Your task to perform on an android device: change text size in settings app Image 0: 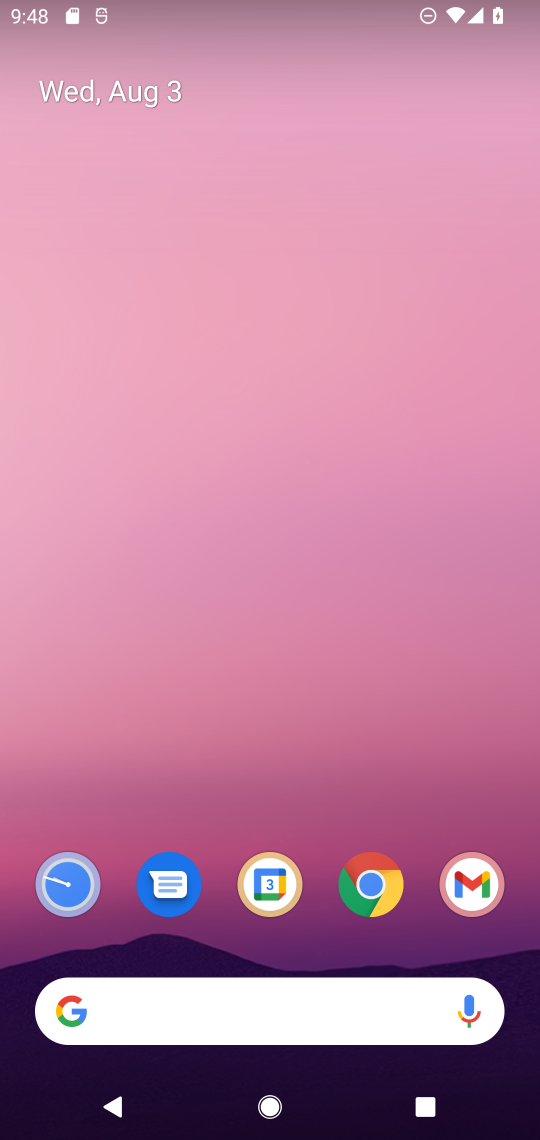
Step 0: drag from (38, 1035) to (444, 68)
Your task to perform on an android device: change text size in settings app Image 1: 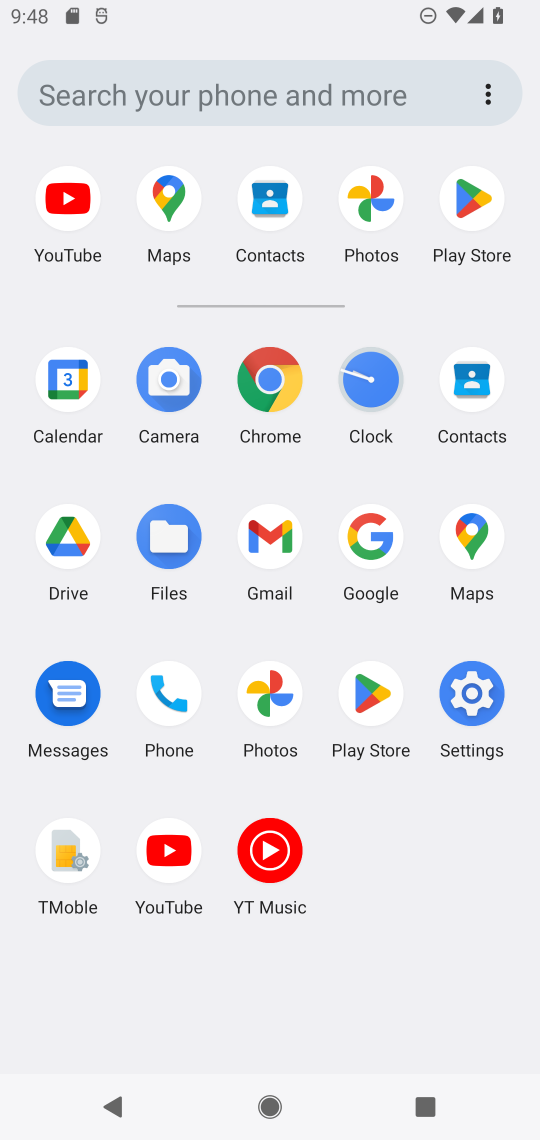
Step 1: click (459, 661)
Your task to perform on an android device: change text size in settings app Image 2: 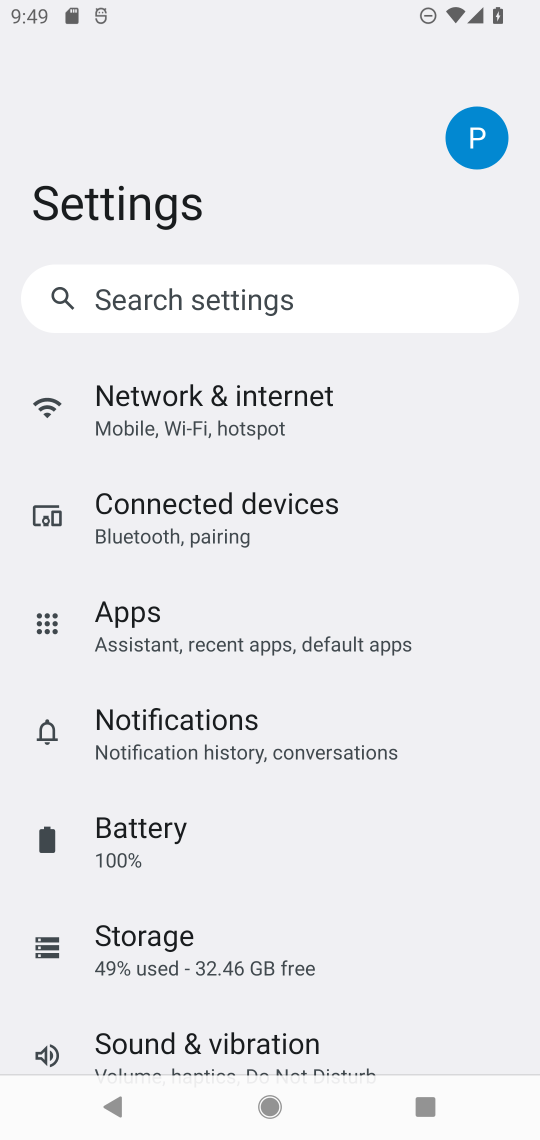
Step 2: drag from (249, 892) to (271, 588)
Your task to perform on an android device: change text size in settings app Image 3: 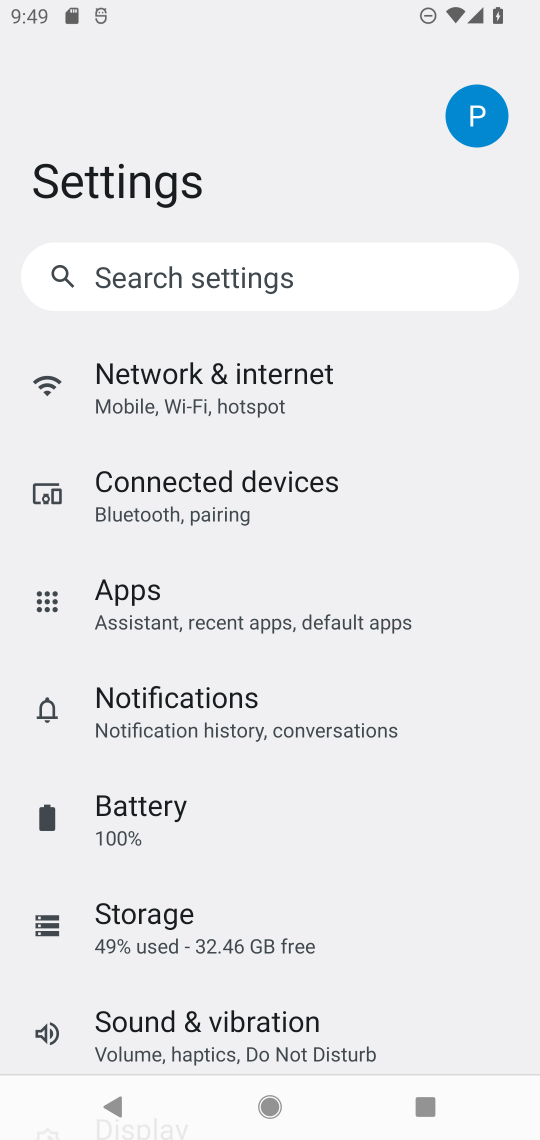
Step 3: drag from (213, 963) to (287, 635)
Your task to perform on an android device: change text size in settings app Image 4: 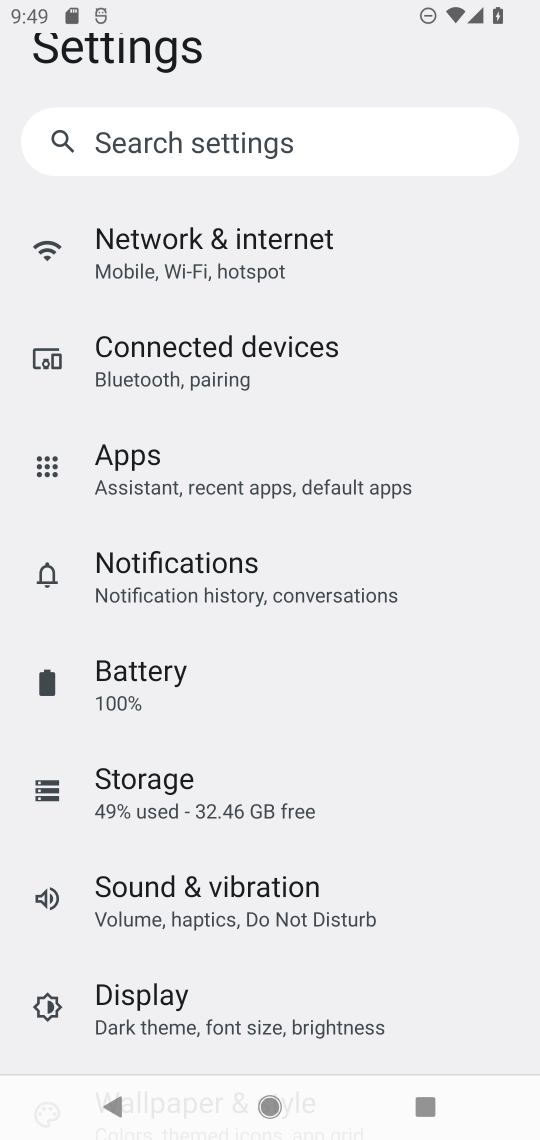
Step 4: drag from (258, 954) to (307, 538)
Your task to perform on an android device: change text size in settings app Image 5: 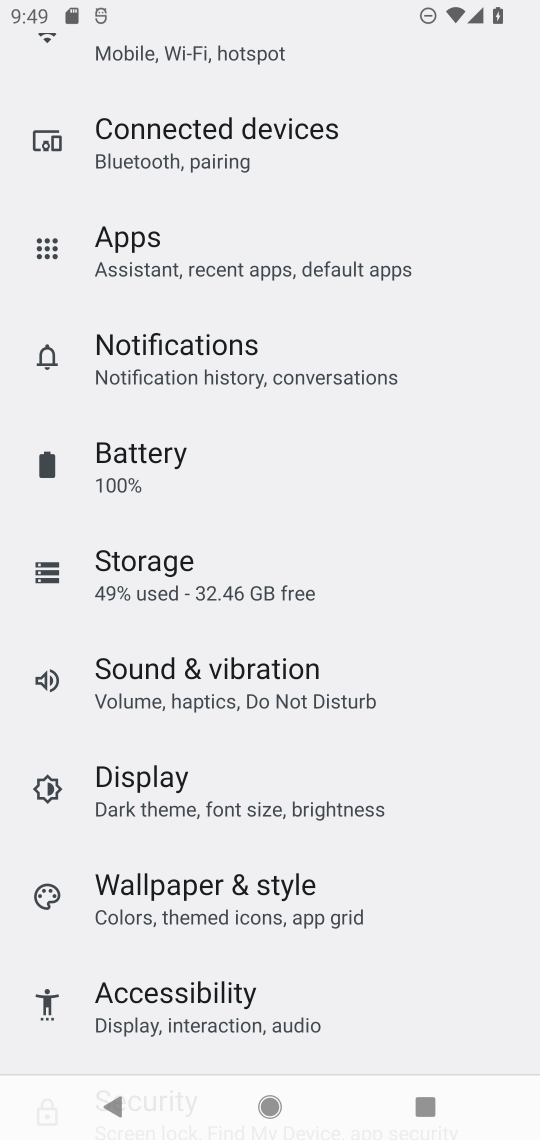
Step 5: click (236, 797)
Your task to perform on an android device: change text size in settings app Image 6: 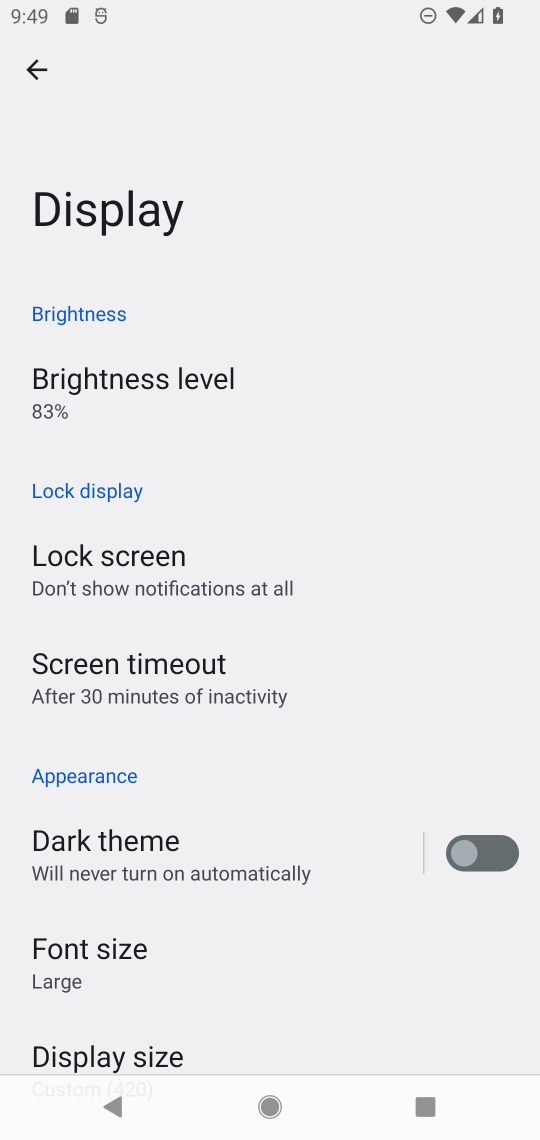
Step 6: click (120, 955)
Your task to perform on an android device: change text size in settings app Image 7: 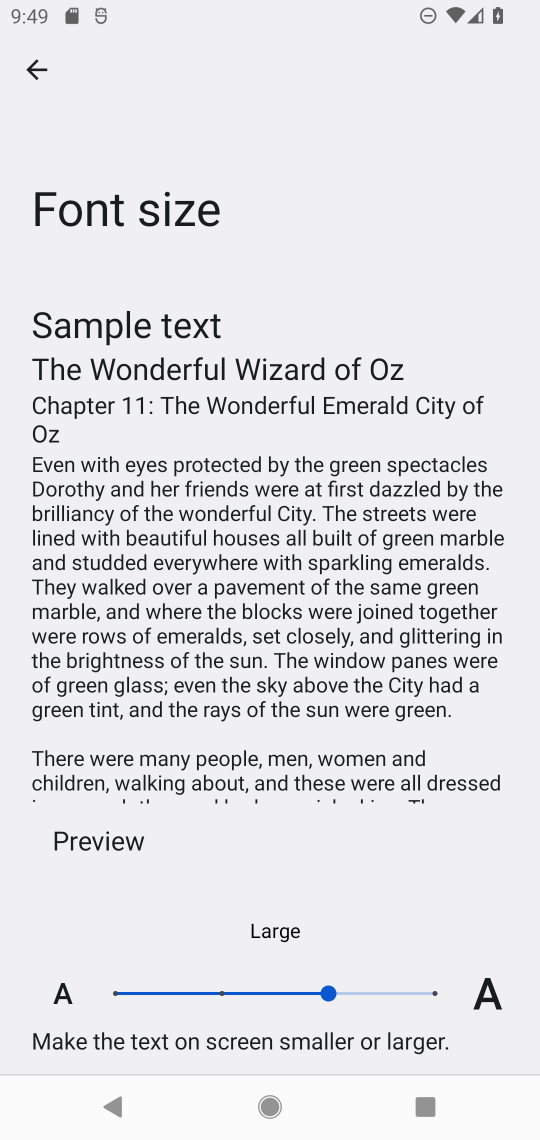
Step 7: click (301, 985)
Your task to perform on an android device: change text size in settings app Image 8: 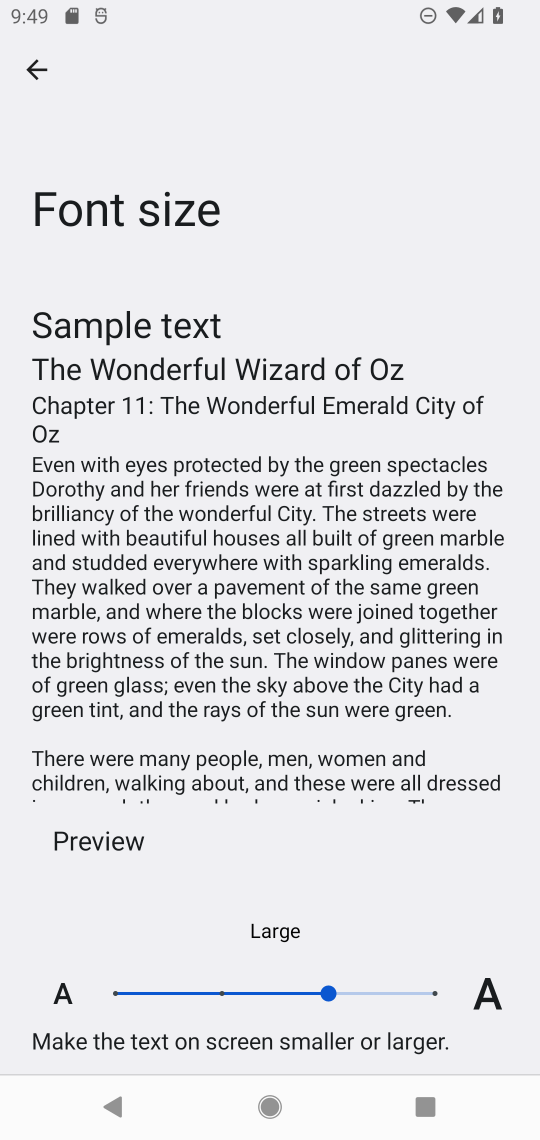
Step 8: click (303, 982)
Your task to perform on an android device: change text size in settings app Image 9: 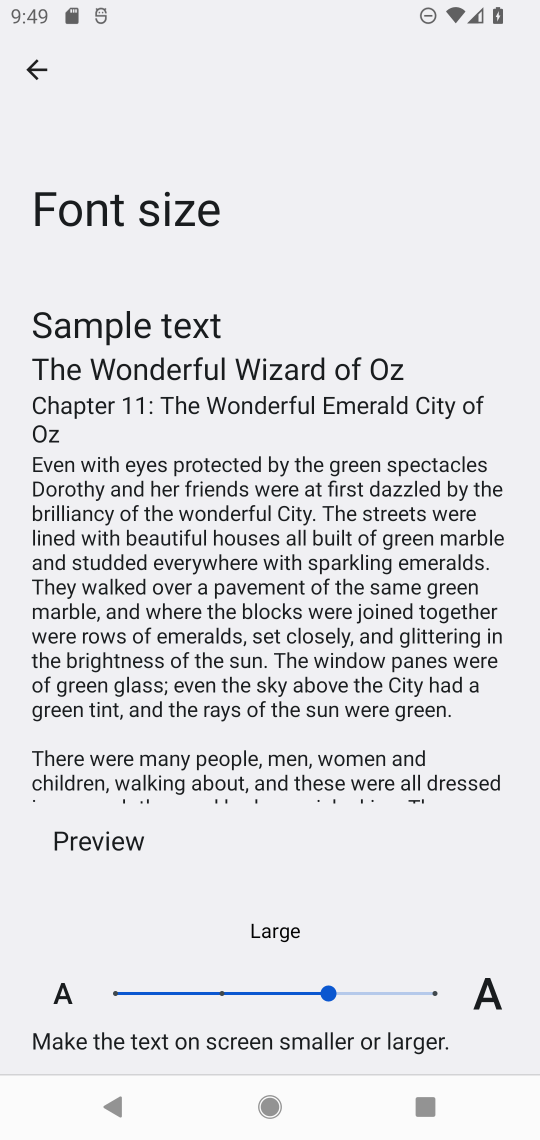
Step 9: click (298, 992)
Your task to perform on an android device: change text size in settings app Image 10: 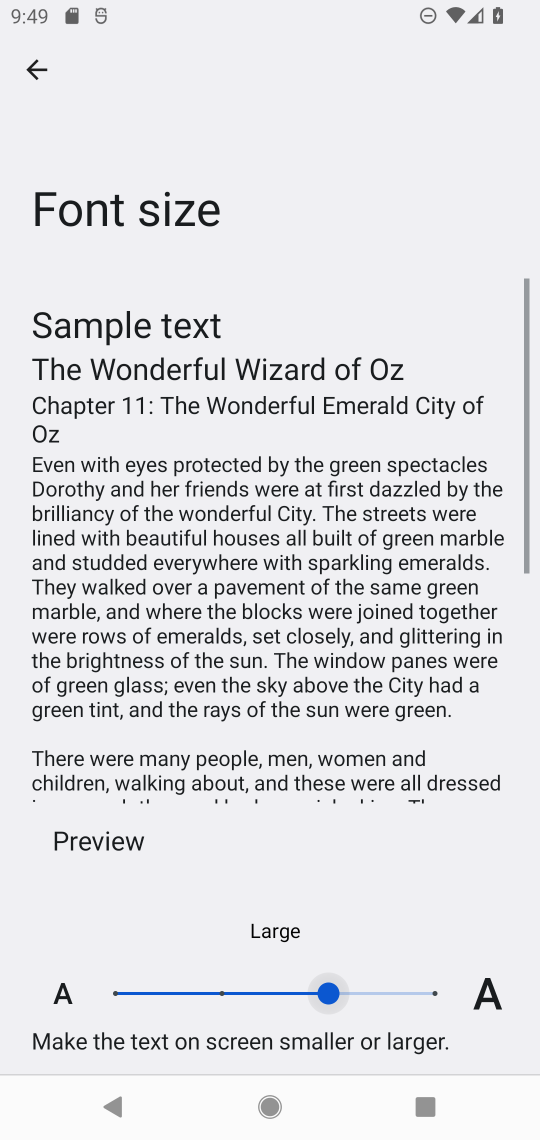
Step 10: click (308, 986)
Your task to perform on an android device: change text size in settings app Image 11: 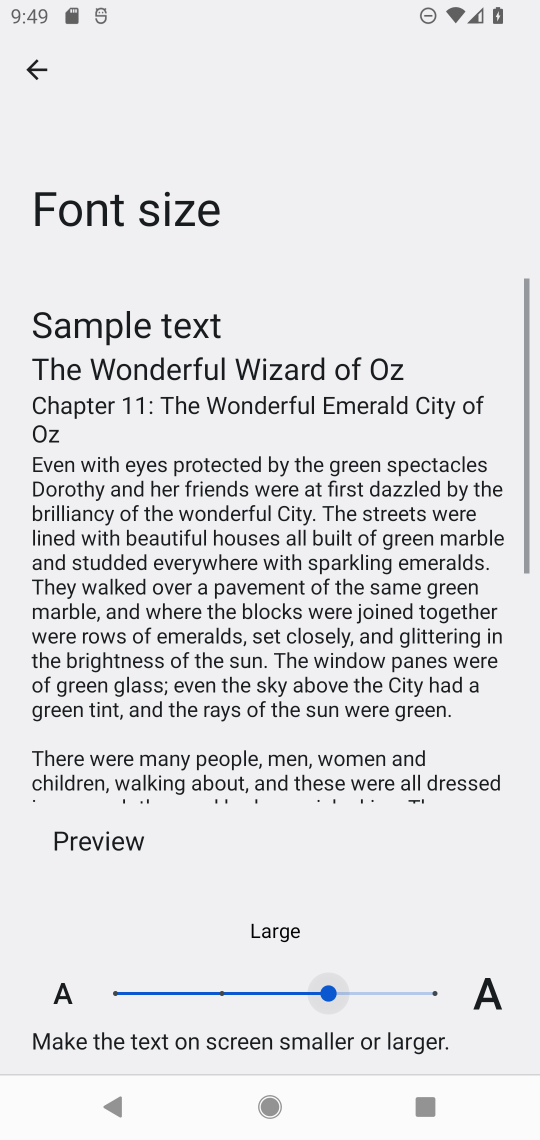
Step 11: click (307, 991)
Your task to perform on an android device: change text size in settings app Image 12: 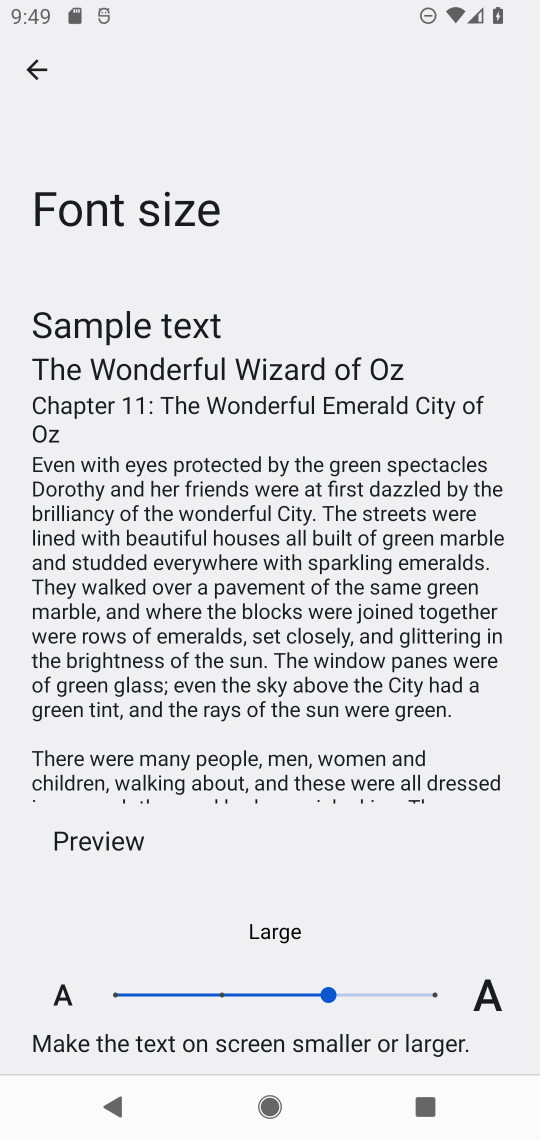
Step 12: task complete